Your task to perform on an android device: Set the phone to "Do not disturb". Image 0: 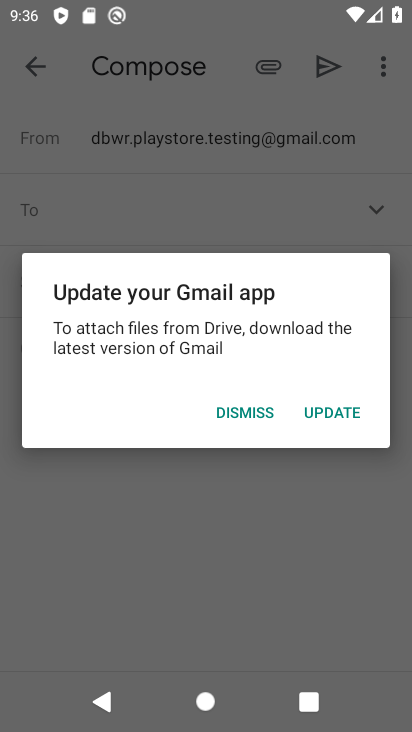
Step 0: press home button
Your task to perform on an android device: Set the phone to "Do not disturb". Image 1: 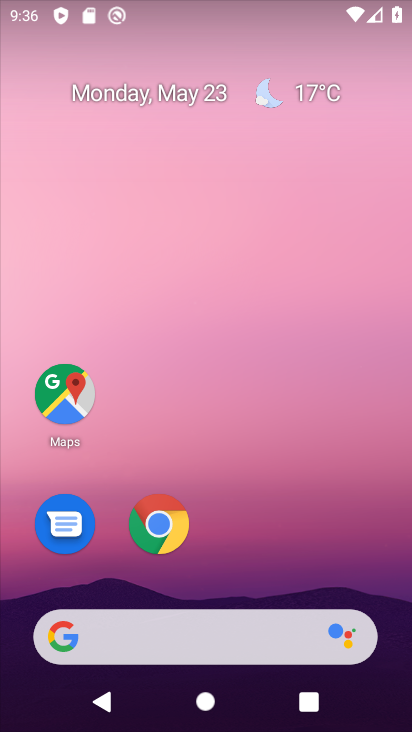
Step 1: drag from (241, 564) to (251, 75)
Your task to perform on an android device: Set the phone to "Do not disturb". Image 2: 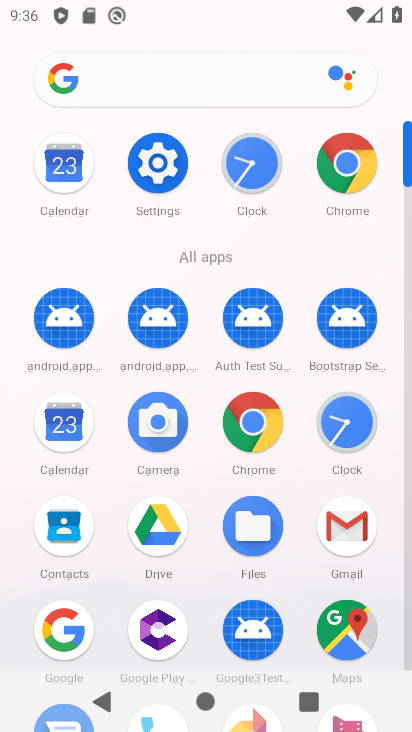
Step 2: click (168, 159)
Your task to perform on an android device: Set the phone to "Do not disturb". Image 3: 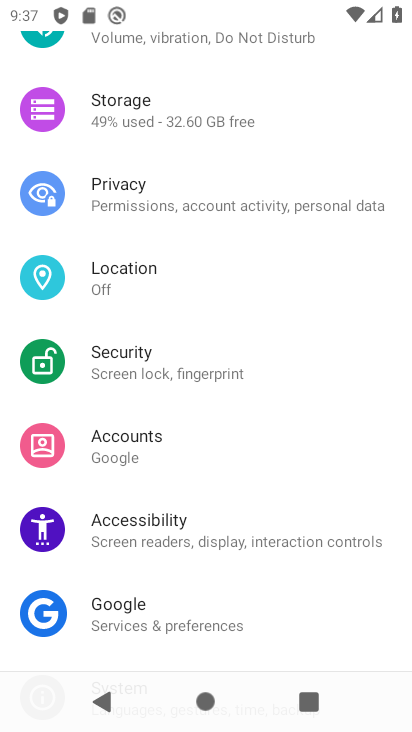
Step 3: drag from (168, 159) to (198, 562)
Your task to perform on an android device: Set the phone to "Do not disturb". Image 4: 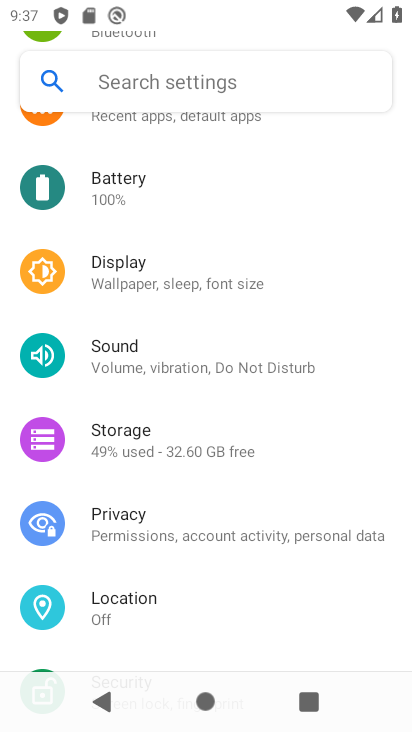
Step 4: click (155, 360)
Your task to perform on an android device: Set the phone to "Do not disturb". Image 5: 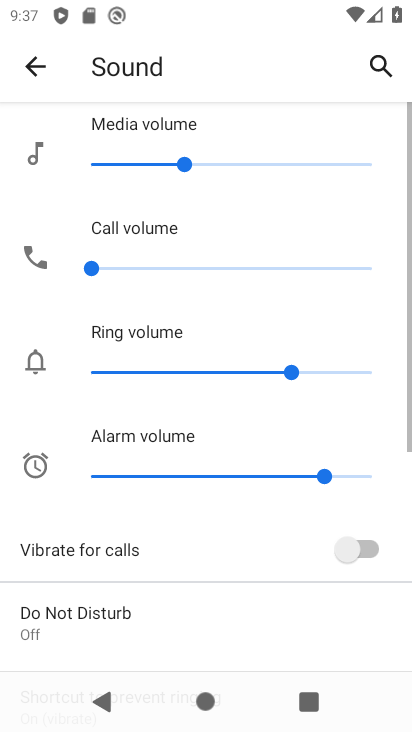
Step 5: drag from (180, 586) to (190, 278)
Your task to perform on an android device: Set the phone to "Do not disturb". Image 6: 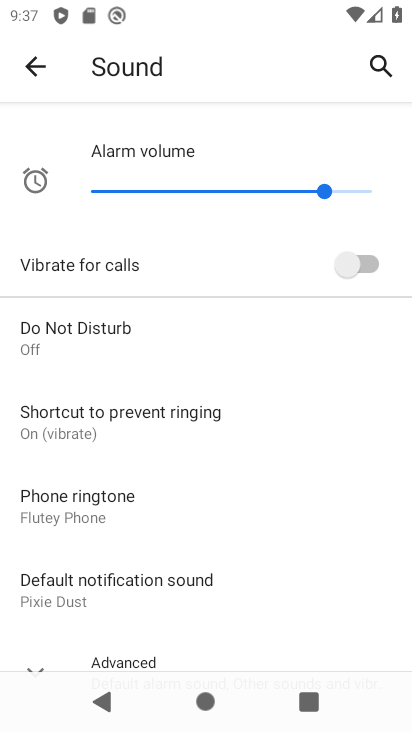
Step 6: click (131, 330)
Your task to perform on an android device: Set the phone to "Do not disturb". Image 7: 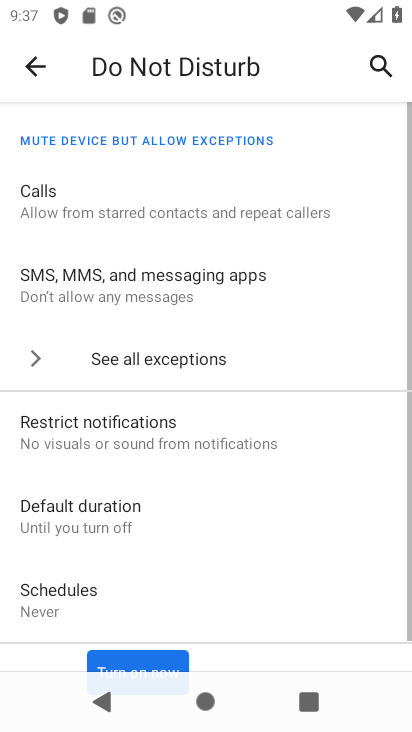
Step 7: drag from (193, 600) to (198, 212)
Your task to perform on an android device: Set the phone to "Do not disturb". Image 8: 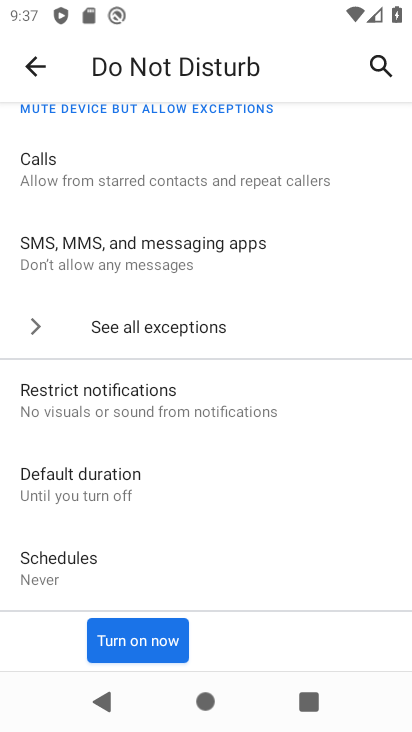
Step 8: click (145, 630)
Your task to perform on an android device: Set the phone to "Do not disturb". Image 9: 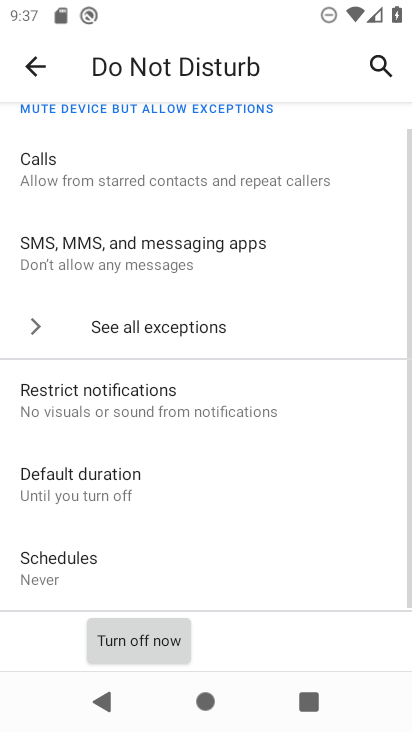
Step 9: task complete